Your task to perform on an android device: turn off location Image 0: 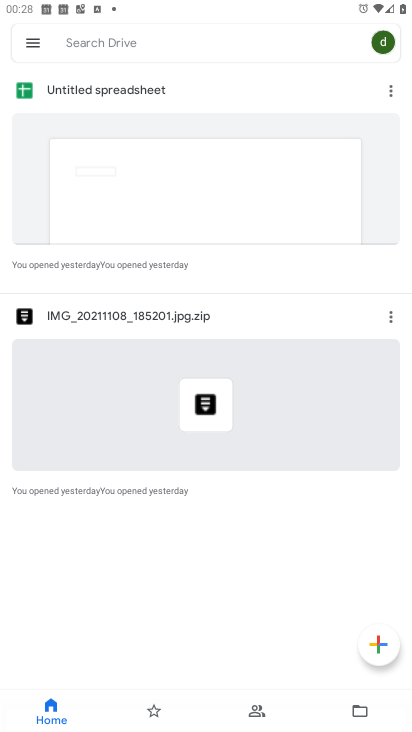
Step 0: press home button
Your task to perform on an android device: turn off location Image 1: 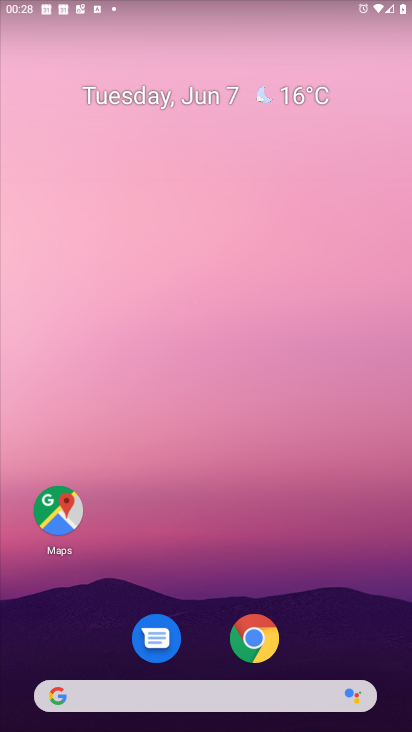
Step 1: drag from (224, 693) to (217, 249)
Your task to perform on an android device: turn off location Image 2: 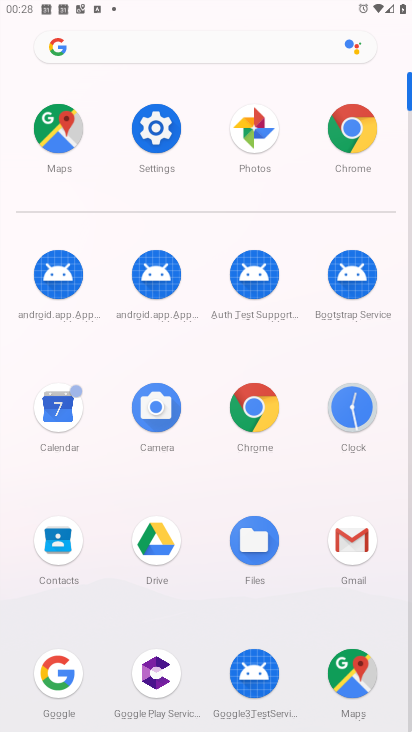
Step 2: click (159, 138)
Your task to perform on an android device: turn off location Image 3: 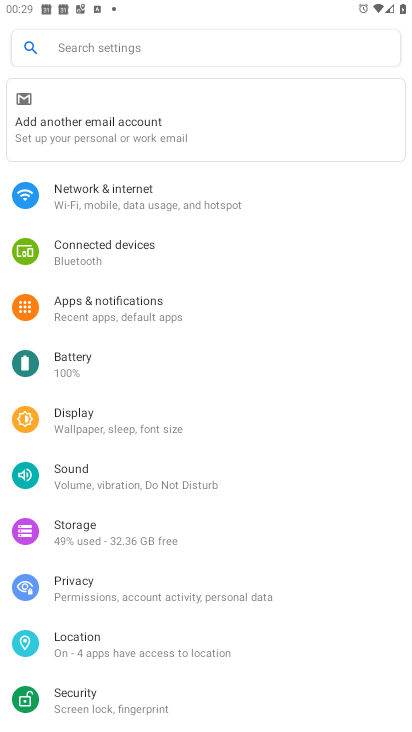
Step 3: click (128, 205)
Your task to perform on an android device: turn off location Image 4: 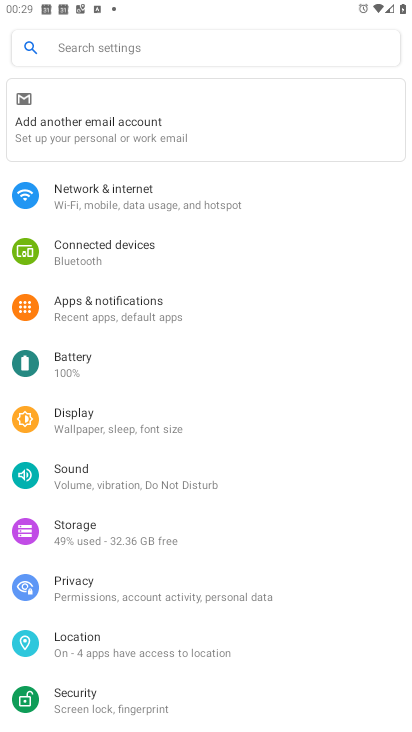
Step 4: click (99, 61)
Your task to perform on an android device: turn off location Image 5: 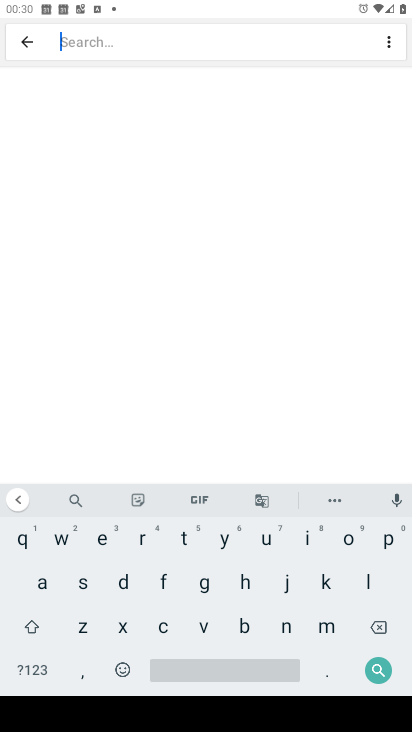
Step 5: click (361, 591)
Your task to perform on an android device: turn off location Image 6: 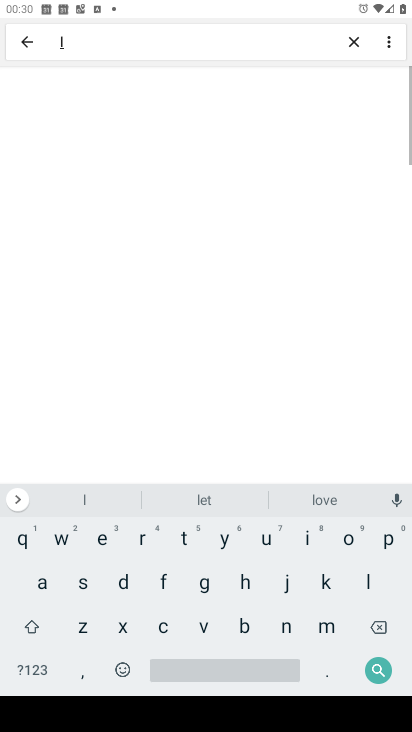
Step 6: click (343, 536)
Your task to perform on an android device: turn off location Image 7: 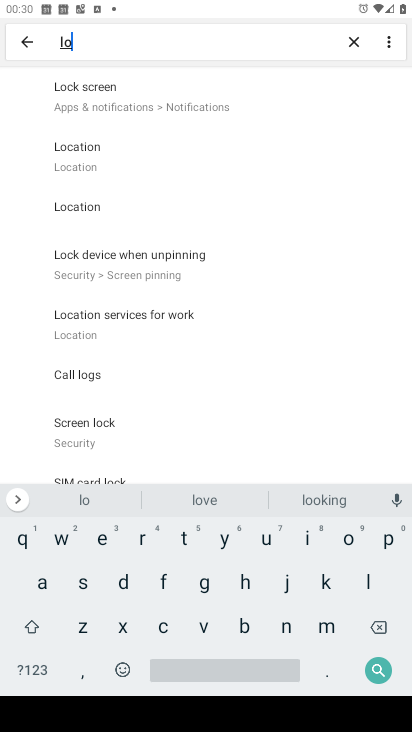
Step 7: click (96, 356)
Your task to perform on an android device: turn off location Image 8: 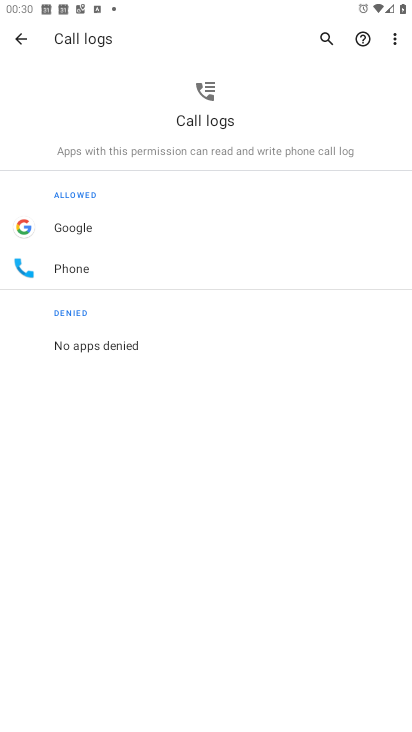
Step 8: task complete